Your task to perform on an android device: Open settings on Google Maps Image 0: 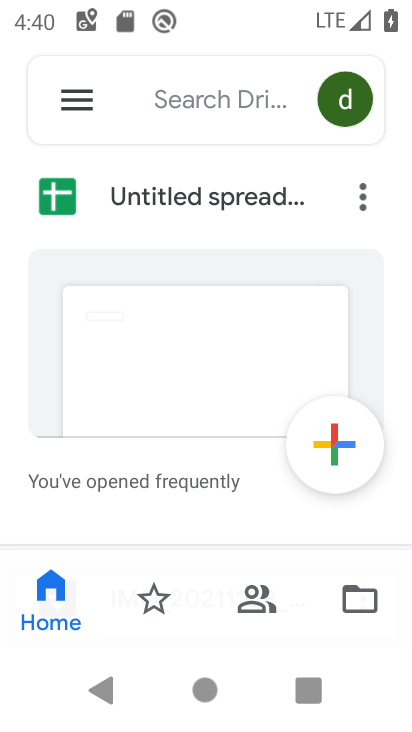
Step 0: press home button
Your task to perform on an android device: Open settings on Google Maps Image 1: 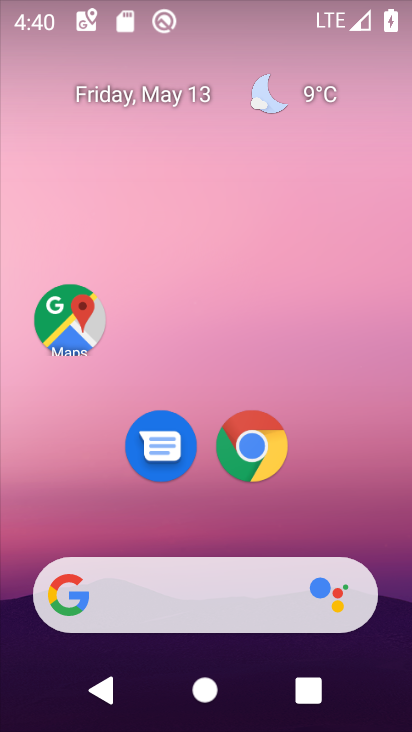
Step 1: drag from (202, 541) to (184, 54)
Your task to perform on an android device: Open settings on Google Maps Image 2: 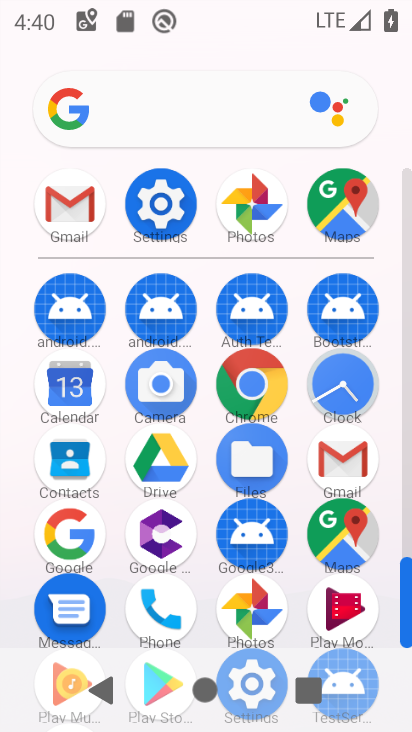
Step 2: click (357, 532)
Your task to perform on an android device: Open settings on Google Maps Image 3: 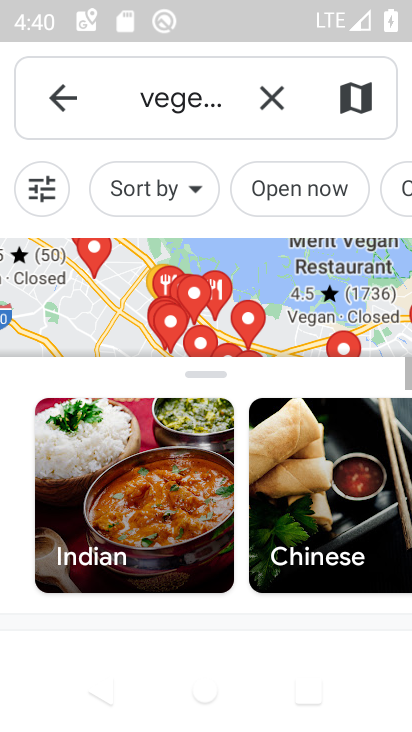
Step 3: click (67, 104)
Your task to perform on an android device: Open settings on Google Maps Image 4: 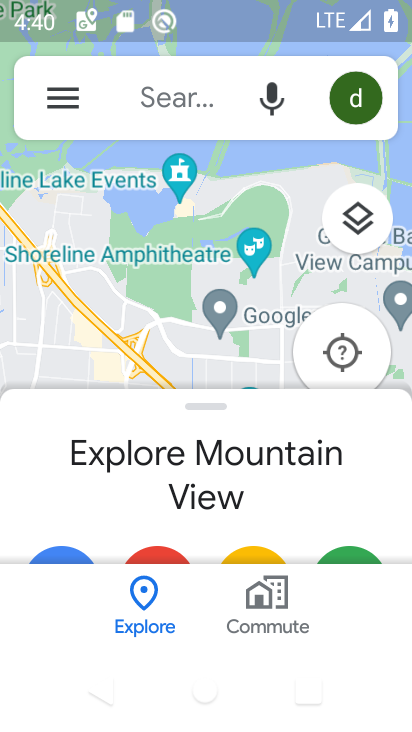
Step 4: click (69, 97)
Your task to perform on an android device: Open settings on Google Maps Image 5: 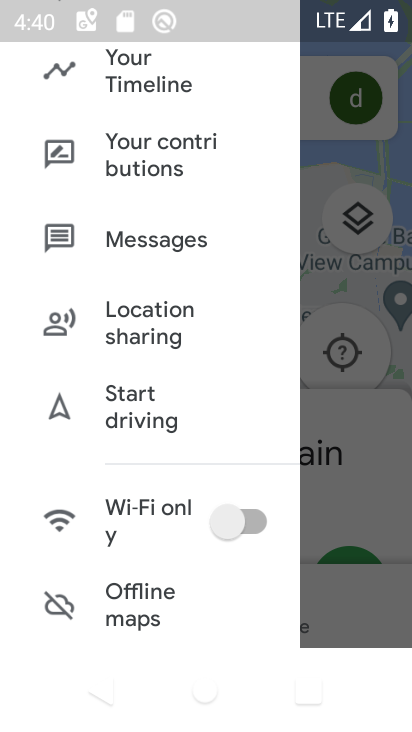
Step 5: drag from (133, 600) to (113, 205)
Your task to perform on an android device: Open settings on Google Maps Image 6: 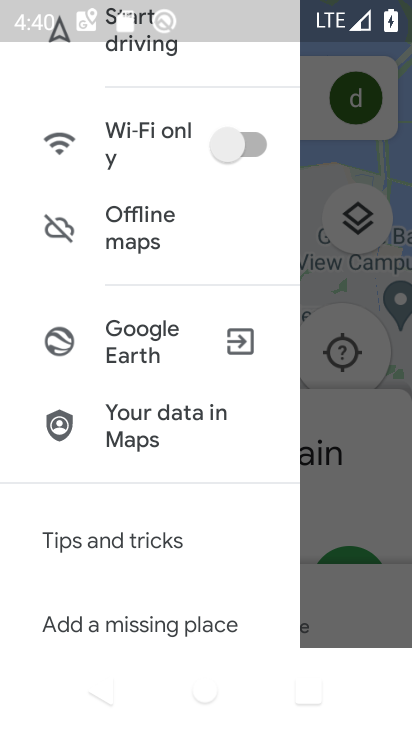
Step 6: drag from (98, 535) to (146, 237)
Your task to perform on an android device: Open settings on Google Maps Image 7: 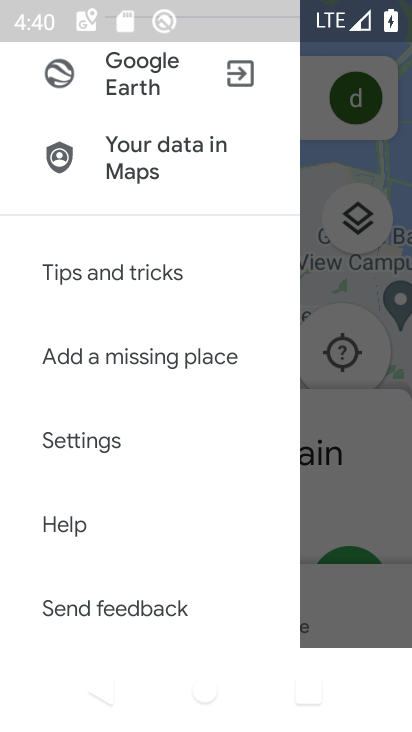
Step 7: click (118, 448)
Your task to perform on an android device: Open settings on Google Maps Image 8: 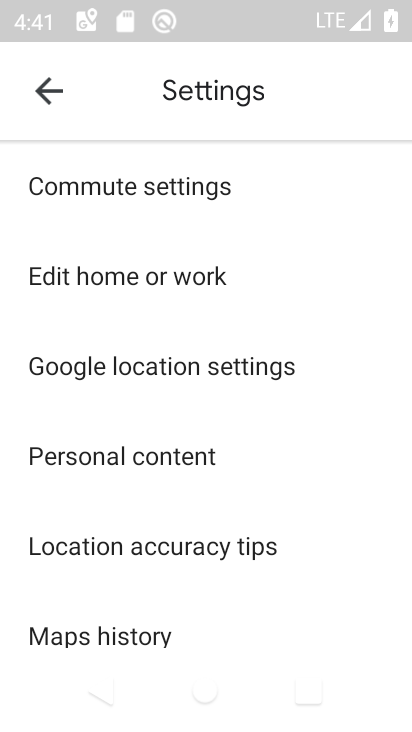
Step 8: task complete